Your task to perform on an android device: Go to notification settings Image 0: 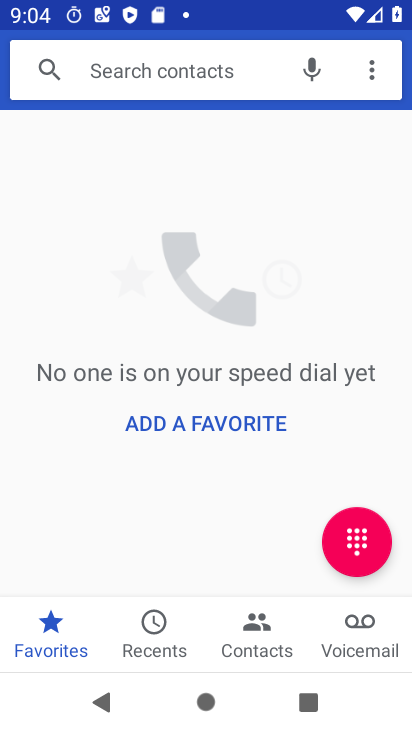
Step 0: press home button
Your task to perform on an android device: Go to notification settings Image 1: 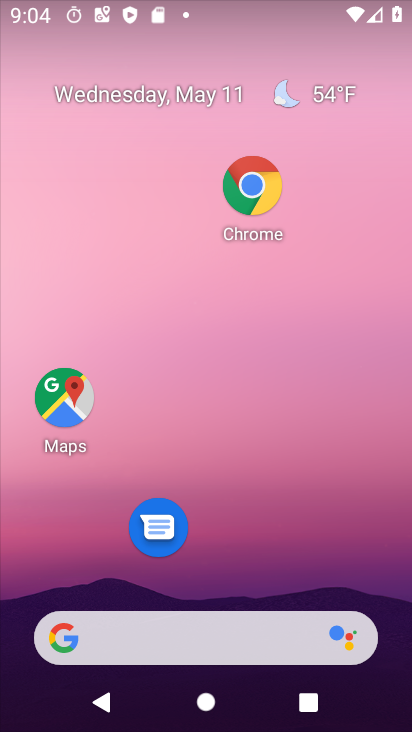
Step 1: drag from (219, 570) to (218, 79)
Your task to perform on an android device: Go to notification settings Image 2: 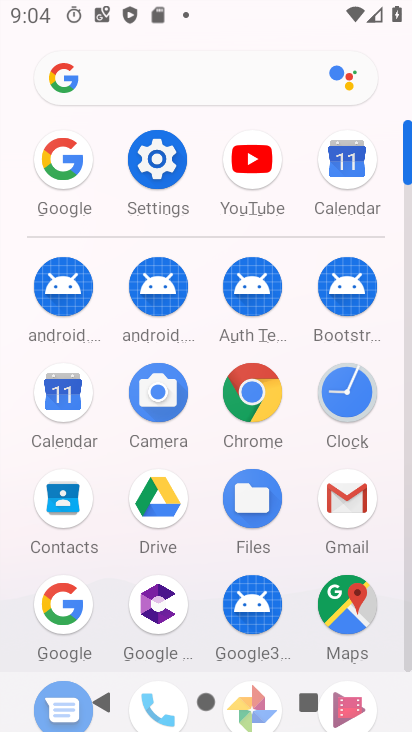
Step 2: click (161, 160)
Your task to perform on an android device: Go to notification settings Image 3: 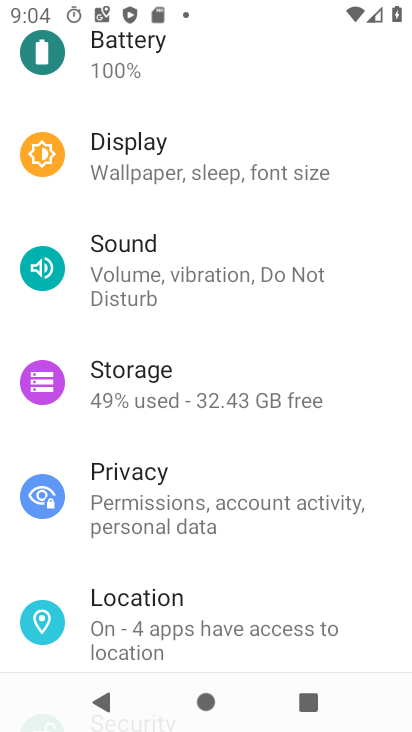
Step 3: drag from (173, 171) to (262, 528)
Your task to perform on an android device: Go to notification settings Image 4: 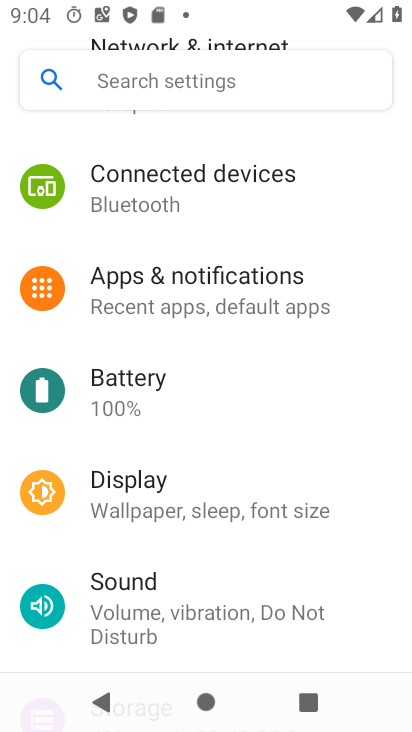
Step 4: click (166, 292)
Your task to perform on an android device: Go to notification settings Image 5: 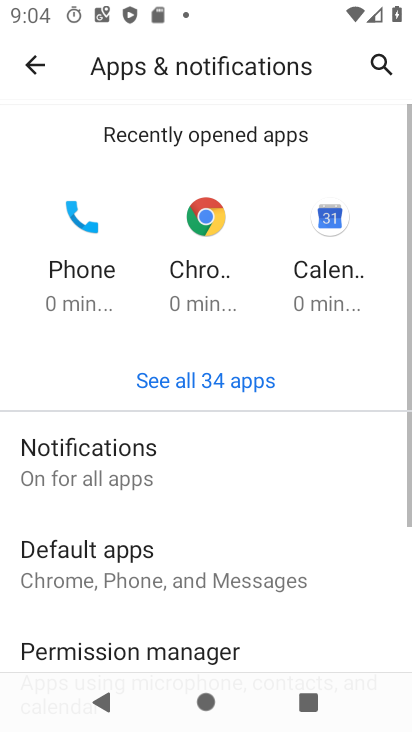
Step 5: click (135, 443)
Your task to perform on an android device: Go to notification settings Image 6: 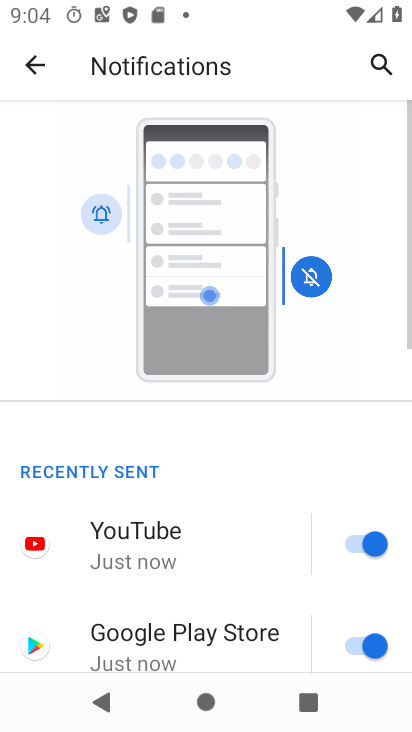
Step 6: task complete